Your task to perform on an android device: Go to settings Image 0: 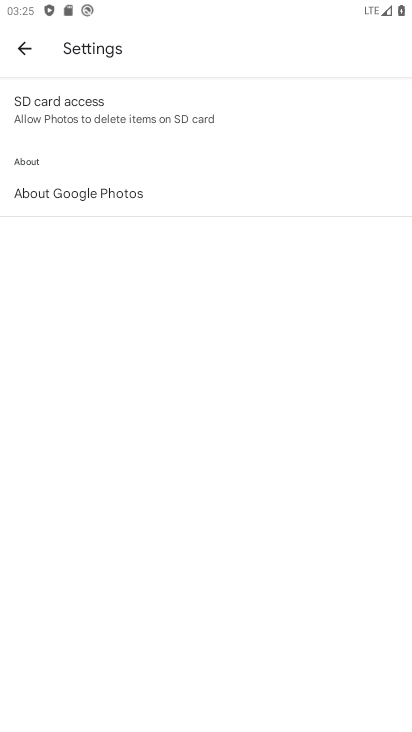
Step 0: press home button
Your task to perform on an android device: Go to settings Image 1: 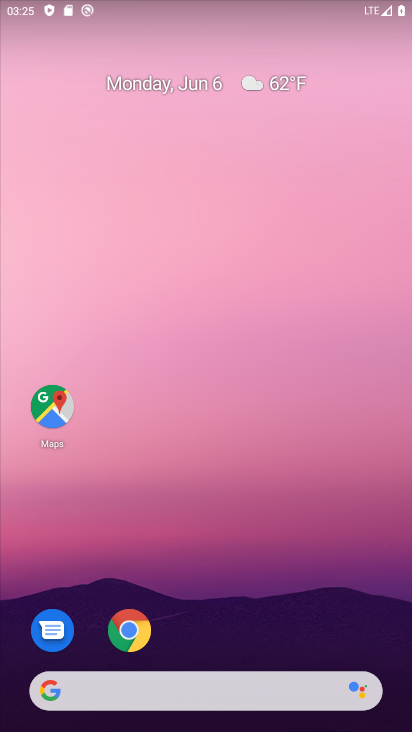
Step 1: drag from (353, 536) to (327, 19)
Your task to perform on an android device: Go to settings Image 2: 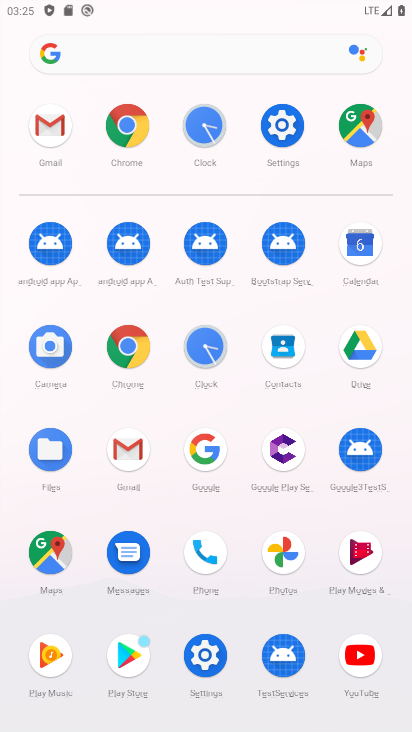
Step 2: click (285, 128)
Your task to perform on an android device: Go to settings Image 3: 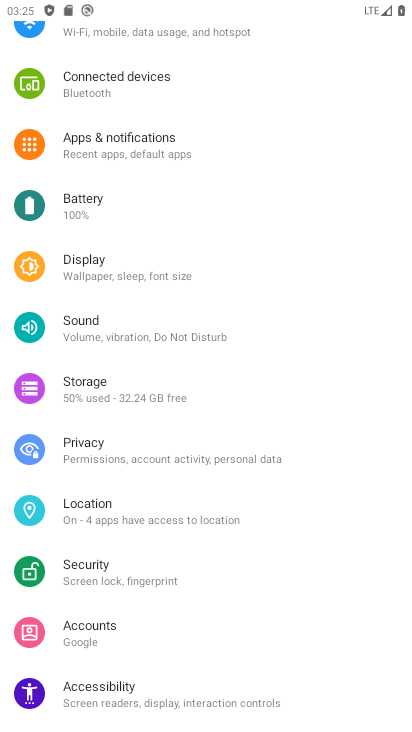
Step 3: task complete